Your task to perform on an android device: Open calendar and show me the first week of next month Image 0: 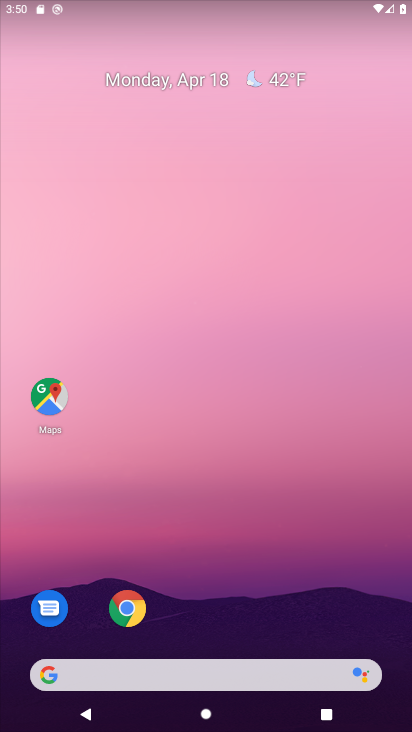
Step 0: click (364, 70)
Your task to perform on an android device: Open calendar and show me the first week of next month Image 1: 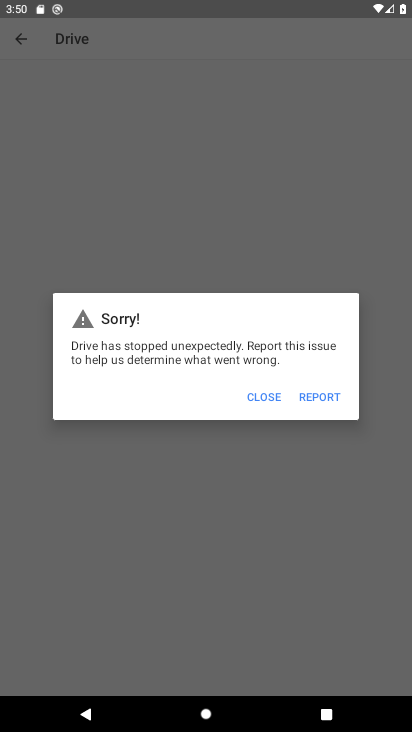
Step 1: press home button
Your task to perform on an android device: Open calendar and show me the first week of next month Image 2: 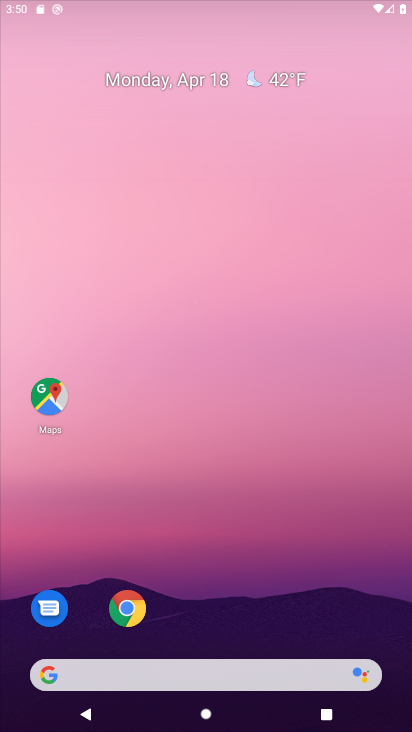
Step 2: click (336, 122)
Your task to perform on an android device: Open calendar and show me the first week of next month Image 3: 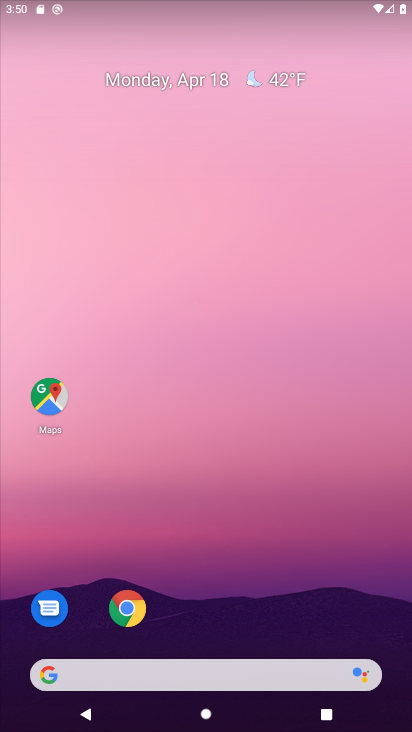
Step 3: drag from (327, 191) to (336, 85)
Your task to perform on an android device: Open calendar and show me the first week of next month Image 4: 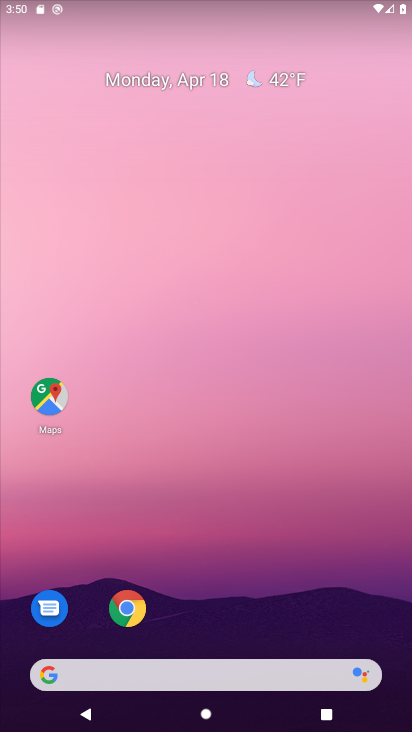
Step 4: drag from (360, 316) to (363, 169)
Your task to perform on an android device: Open calendar and show me the first week of next month Image 5: 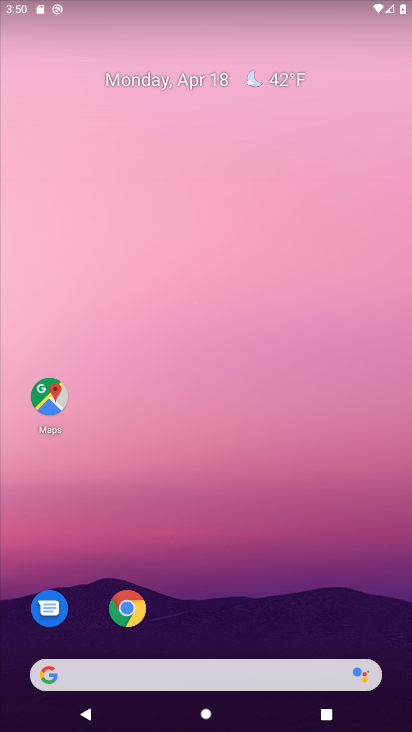
Step 5: drag from (359, 250) to (349, 68)
Your task to perform on an android device: Open calendar and show me the first week of next month Image 6: 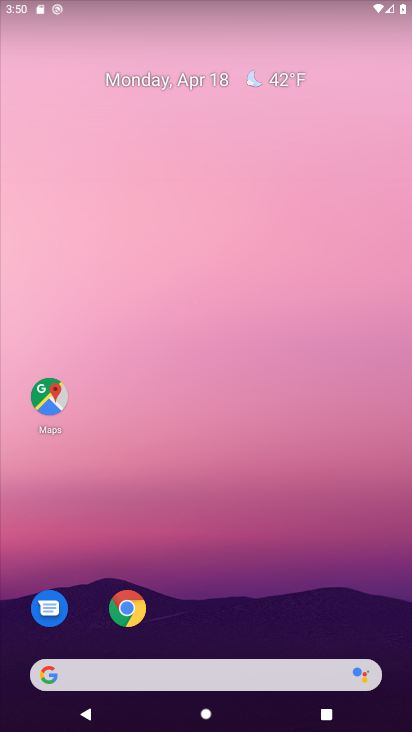
Step 6: drag from (366, 457) to (331, 43)
Your task to perform on an android device: Open calendar and show me the first week of next month Image 7: 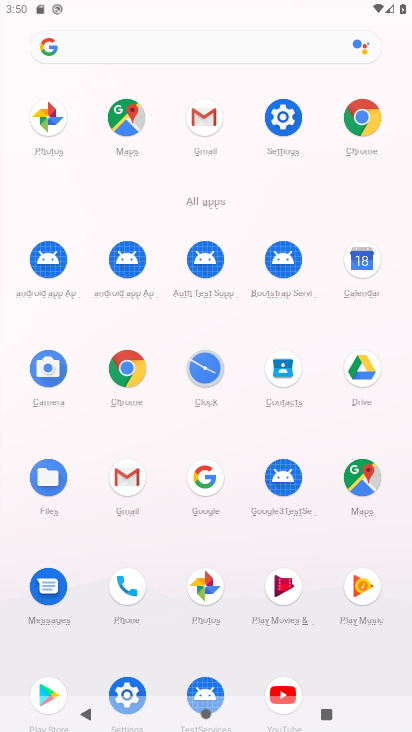
Step 7: click (363, 271)
Your task to perform on an android device: Open calendar and show me the first week of next month Image 8: 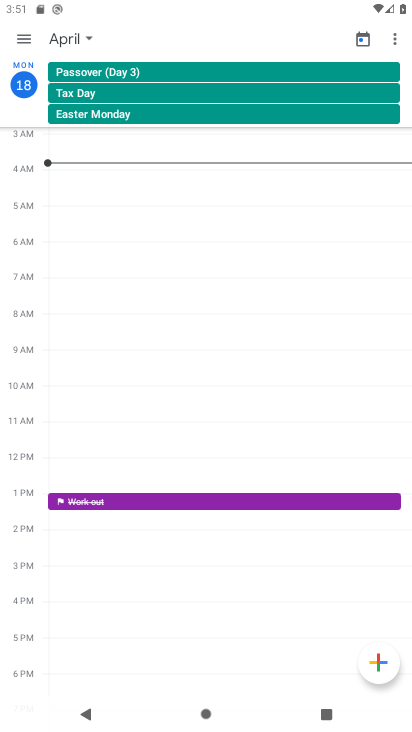
Step 8: click (80, 39)
Your task to perform on an android device: Open calendar and show me the first week of next month Image 9: 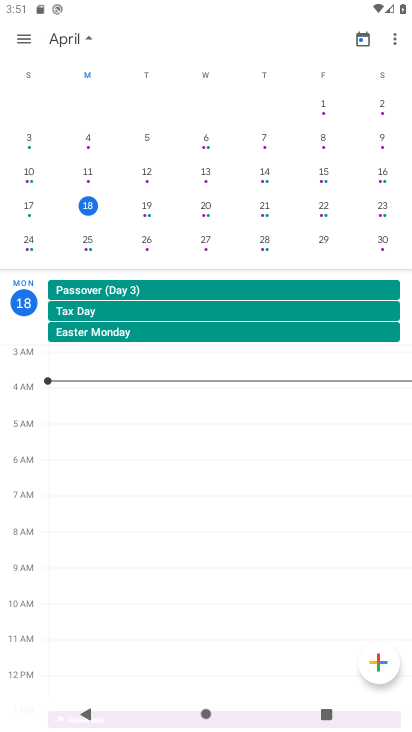
Step 9: drag from (355, 165) to (50, 176)
Your task to perform on an android device: Open calendar and show me the first week of next month Image 10: 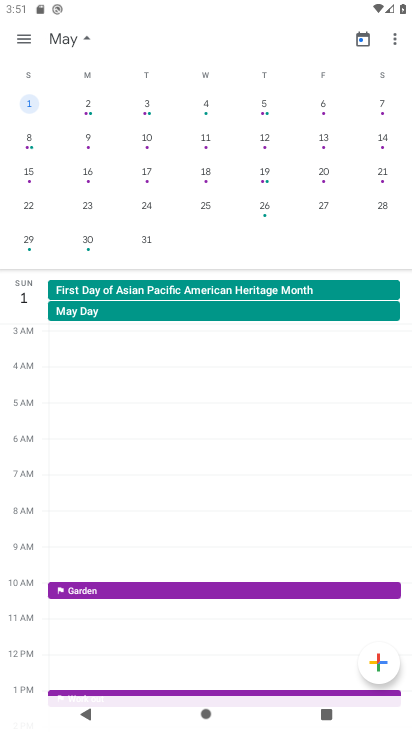
Step 10: click (202, 104)
Your task to perform on an android device: Open calendar and show me the first week of next month Image 11: 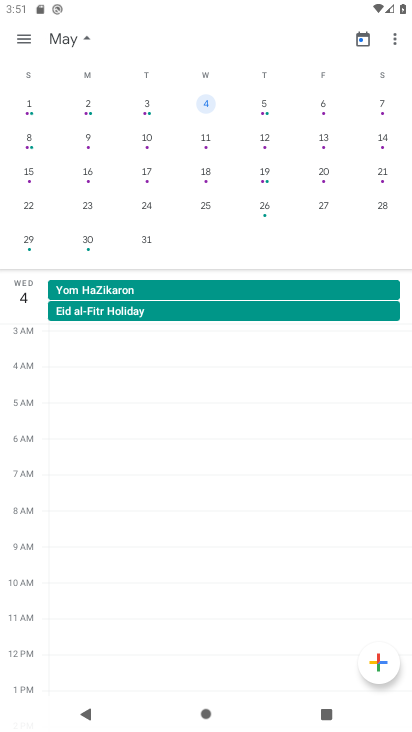
Step 11: task complete